Your task to perform on an android device: Play the last video I watched on Youtube Image 0: 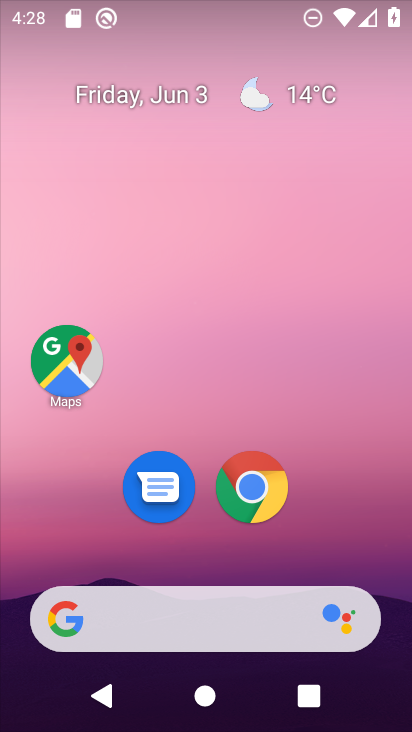
Step 0: drag from (199, 500) to (252, 46)
Your task to perform on an android device: Play the last video I watched on Youtube Image 1: 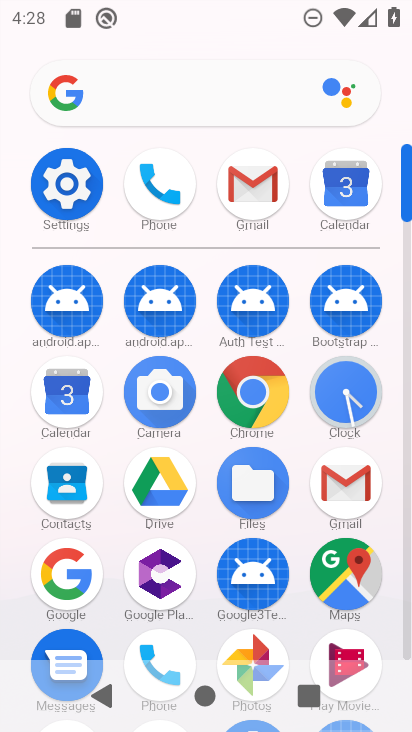
Step 1: drag from (175, 618) to (274, 32)
Your task to perform on an android device: Play the last video I watched on Youtube Image 2: 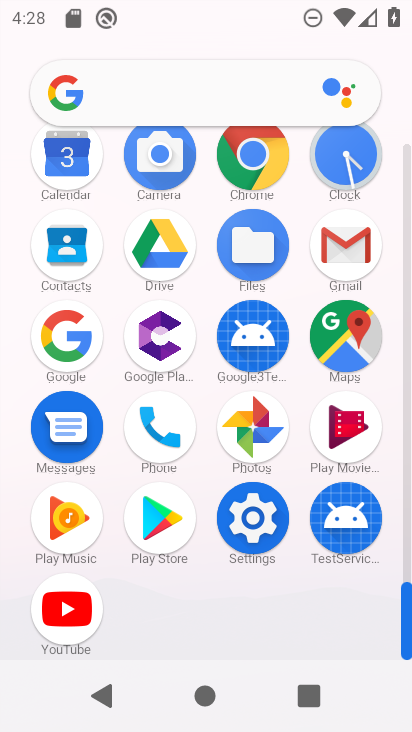
Step 2: click (68, 621)
Your task to perform on an android device: Play the last video I watched on Youtube Image 3: 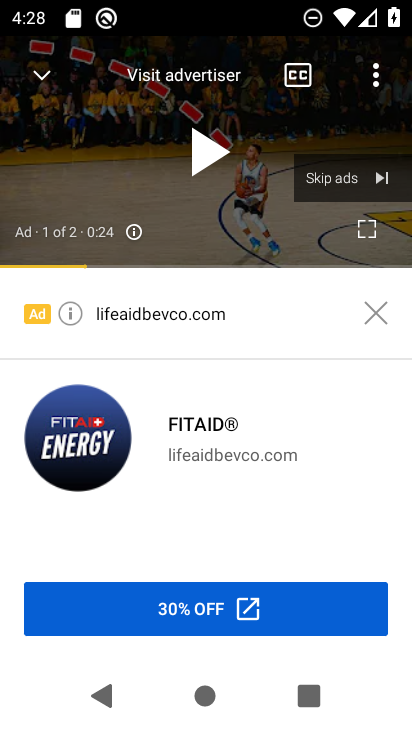
Step 3: click (193, 144)
Your task to perform on an android device: Play the last video I watched on Youtube Image 4: 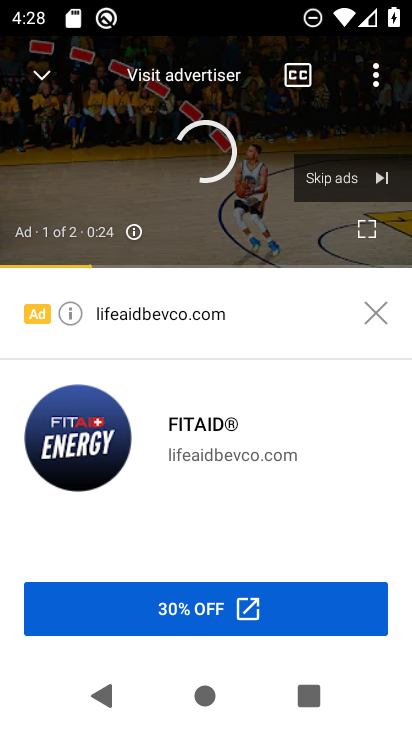
Step 4: click (193, 144)
Your task to perform on an android device: Play the last video I watched on Youtube Image 5: 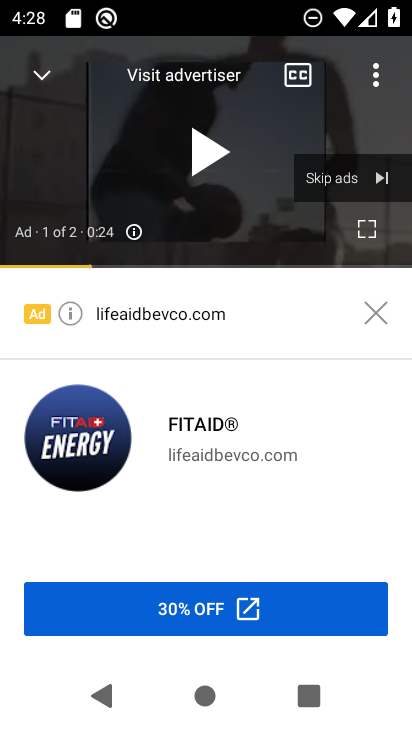
Step 5: task complete